Your task to perform on an android device: Find coffee shops on Maps Image 0: 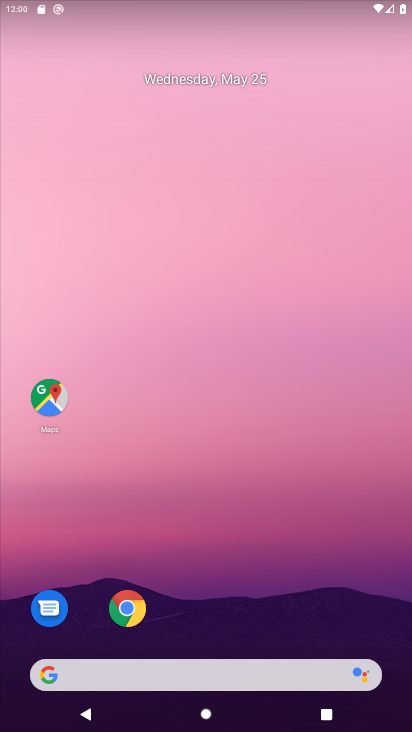
Step 0: click (43, 391)
Your task to perform on an android device: Find coffee shops on Maps Image 1: 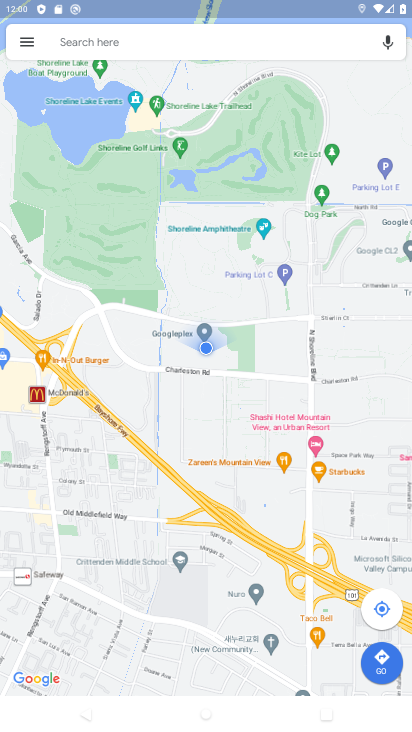
Step 1: click (240, 41)
Your task to perform on an android device: Find coffee shops on Maps Image 2: 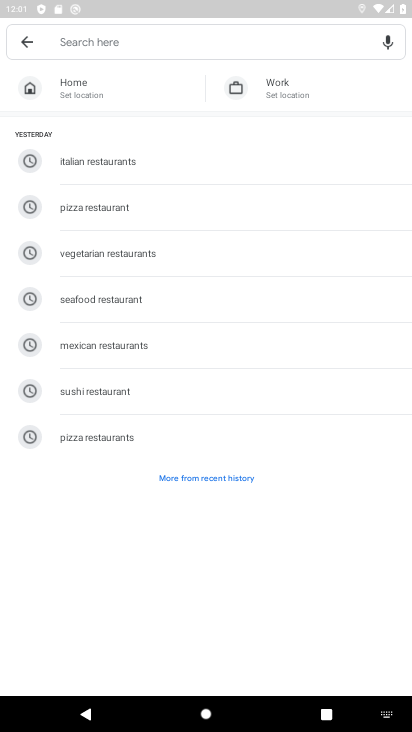
Step 2: type "coffee shops"
Your task to perform on an android device: Find coffee shops on Maps Image 3: 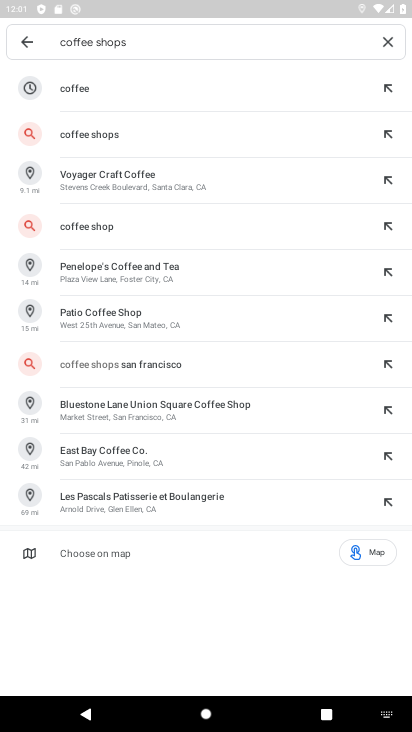
Step 3: click (115, 126)
Your task to perform on an android device: Find coffee shops on Maps Image 4: 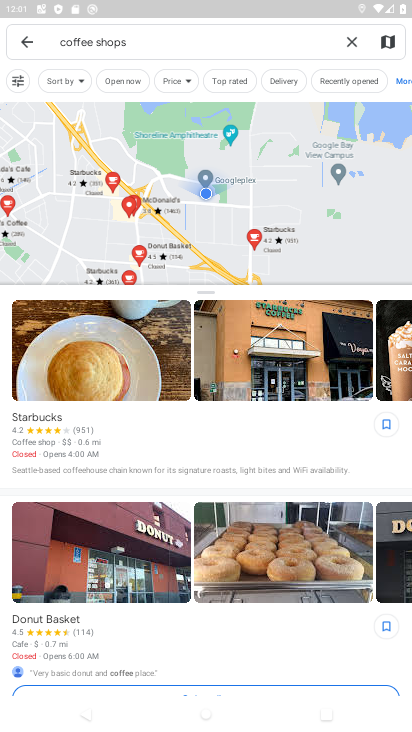
Step 4: task complete